Your task to perform on an android device: Go to sound settings Image 0: 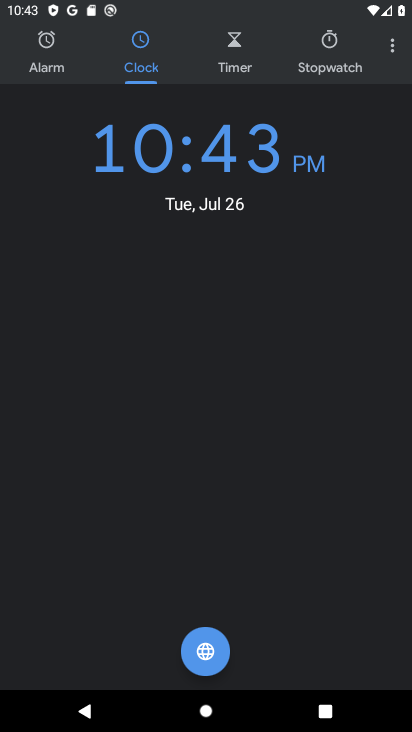
Step 0: press home button
Your task to perform on an android device: Go to sound settings Image 1: 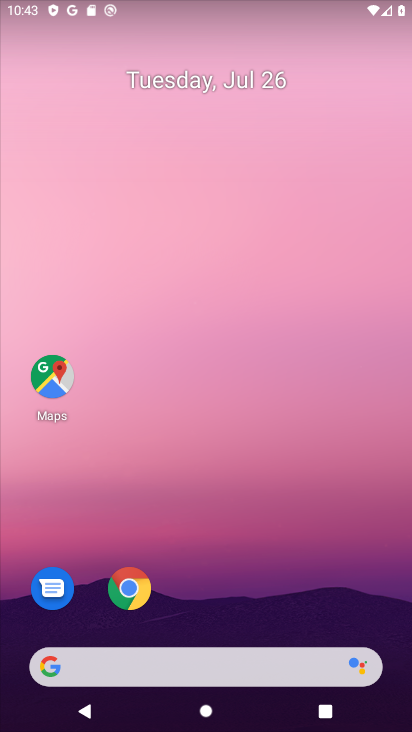
Step 1: drag from (229, 447) to (275, 61)
Your task to perform on an android device: Go to sound settings Image 2: 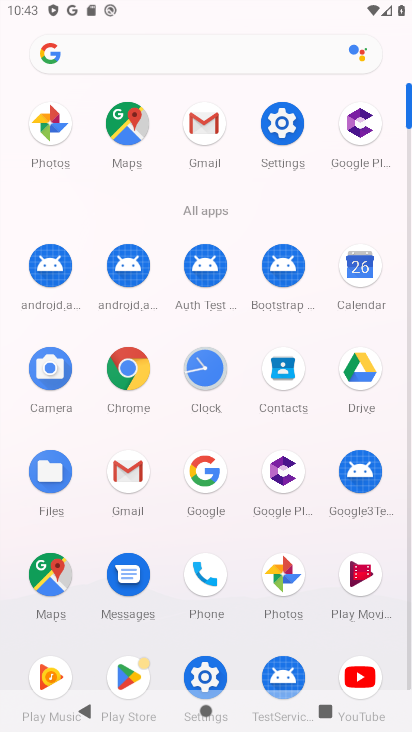
Step 2: click (280, 120)
Your task to perform on an android device: Go to sound settings Image 3: 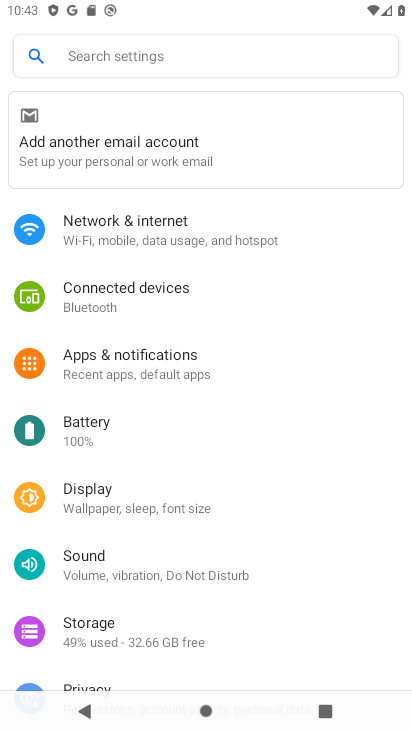
Step 3: click (104, 556)
Your task to perform on an android device: Go to sound settings Image 4: 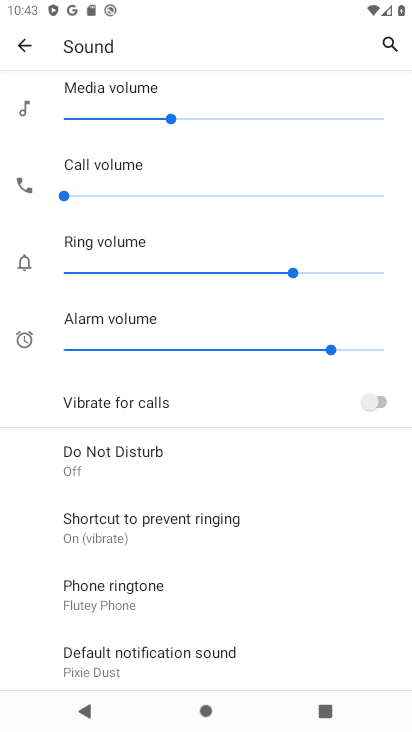
Step 4: drag from (186, 629) to (245, 215)
Your task to perform on an android device: Go to sound settings Image 5: 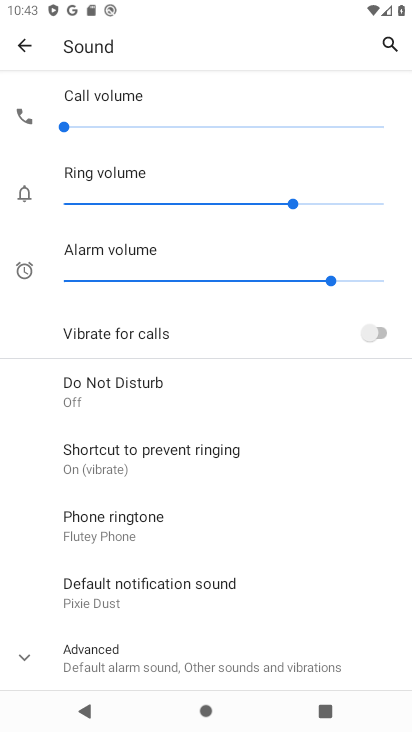
Step 5: click (26, 657)
Your task to perform on an android device: Go to sound settings Image 6: 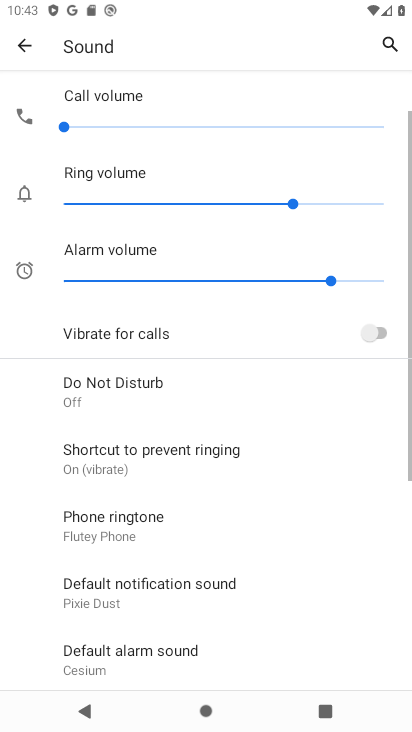
Step 6: task complete